Your task to perform on an android device: toggle pop-ups in chrome Image 0: 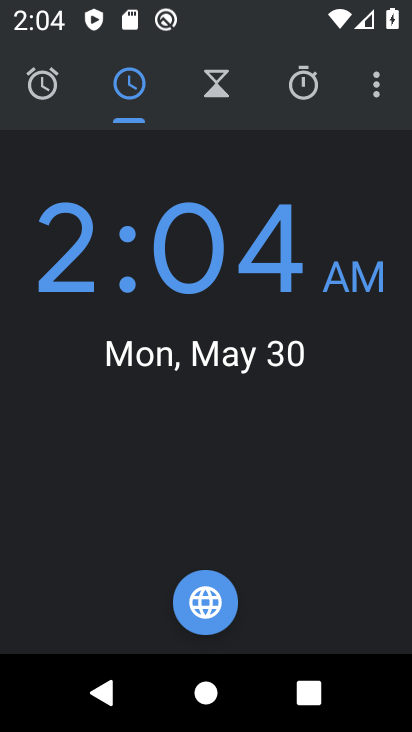
Step 0: press home button
Your task to perform on an android device: toggle pop-ups in chrome Image 1: 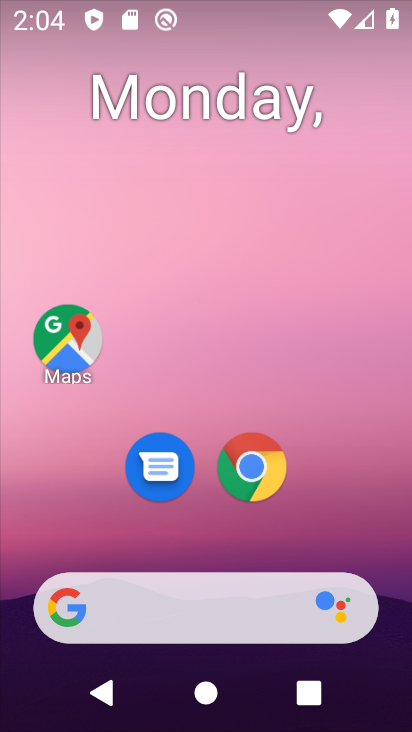
Step 1: drag from (373, 518) to (325, 153)
Your task to perform on an android device: toggle pop-ups in chrome Image 2: 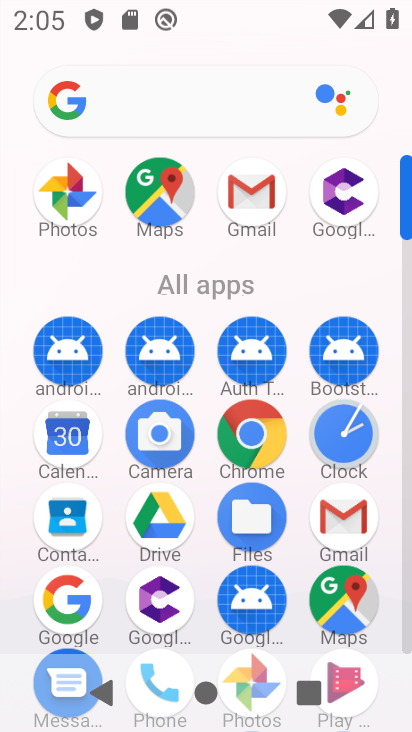
Step 2: click (401, 642)
Your task to perform on an android device: toggle pop-ups in chrome Image 3: 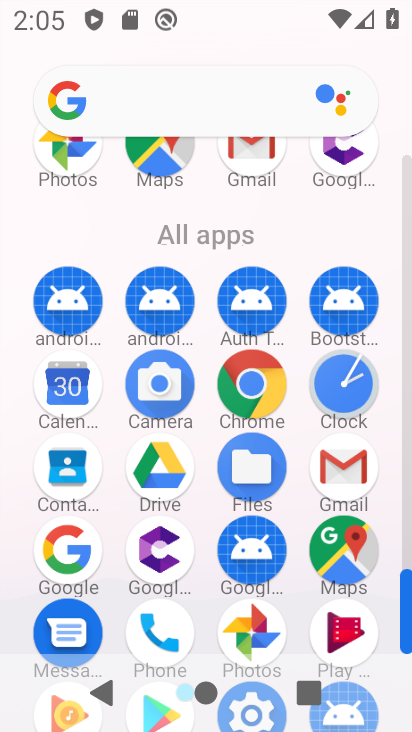
Step 3: click (262, 387)
Your task to perform on an android device: toggle pop-ups in chrome Image 4: 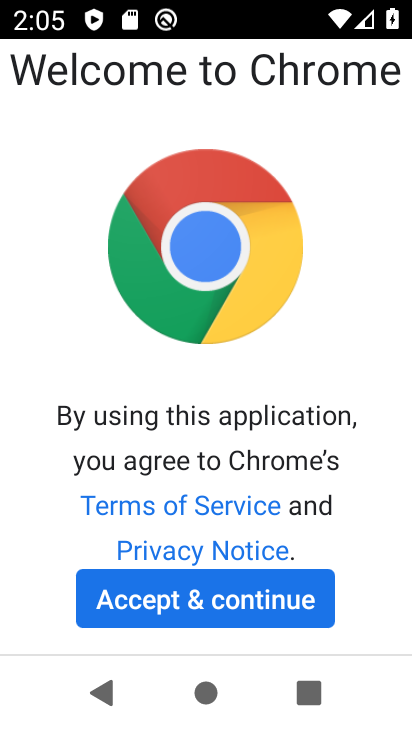
Step 4: click (289, 583)
Your task to perform on an android device: toggle pop-ups in chrome Image 5: 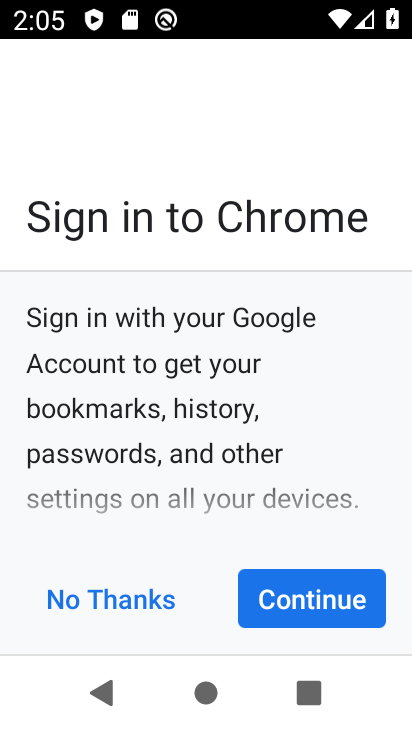
Step 5: click (289, 583)
Your task to perform on an android device: toggle pop-ups in chrome Image 6: 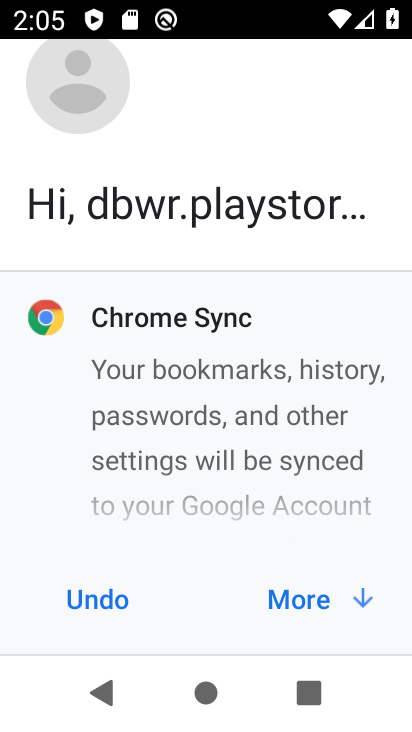
Step 6: click (289, 583)
Your task to perform on an android device: toggle pop-ups in chrome Image 7: 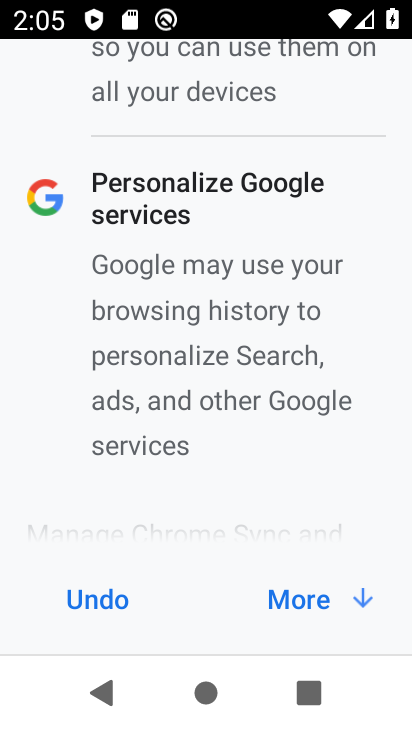
Step 7: click (289, 583)
Your task to perform on an android device: toggle pop-ups in chrome Image 8: 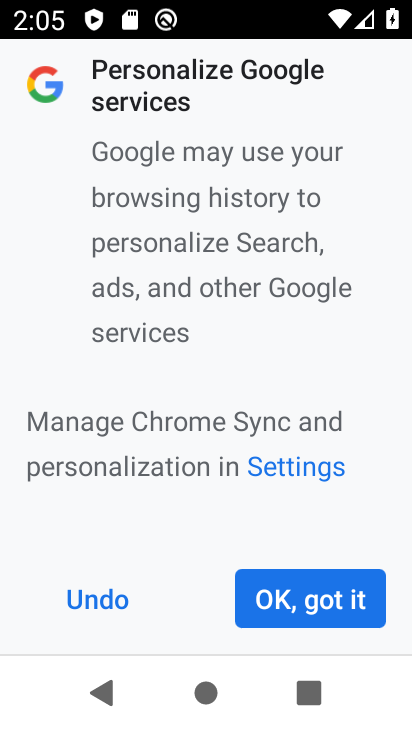
Step 8: click (289, 583)
Your task to perform on an android device: toggle pop-ups in chrome Image 9: 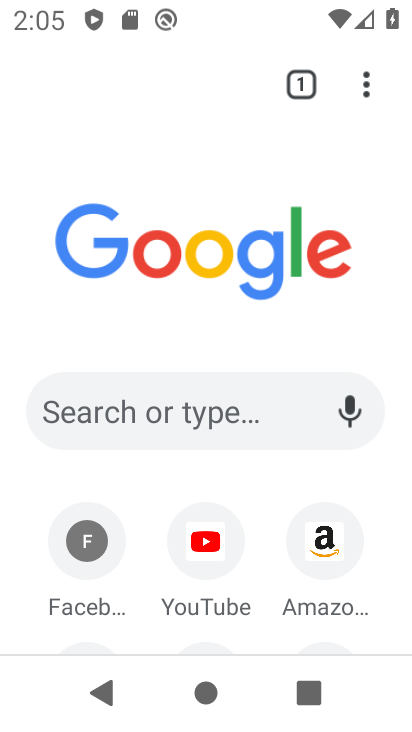
Step 9: click (382, 81)
Your task to perform on an android device: toggle pop-ups in chrome Image 10: 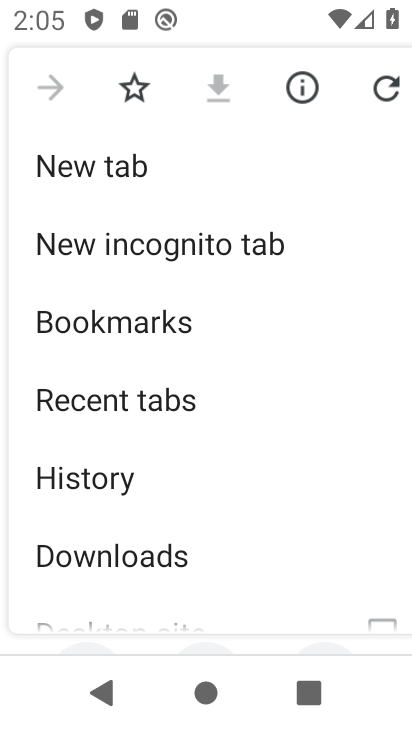
Step 10: drag from (186, 593) to (210, 196)
Your task to perform on an android device: toggle pop-ups in chrome Image 11: 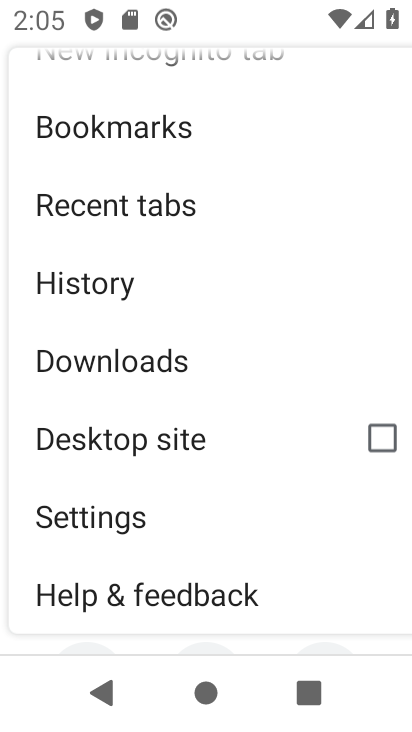
Step 11: click (156, 526)
Your task to perform on an android device: toggle pop-ups in chrome Image 12: 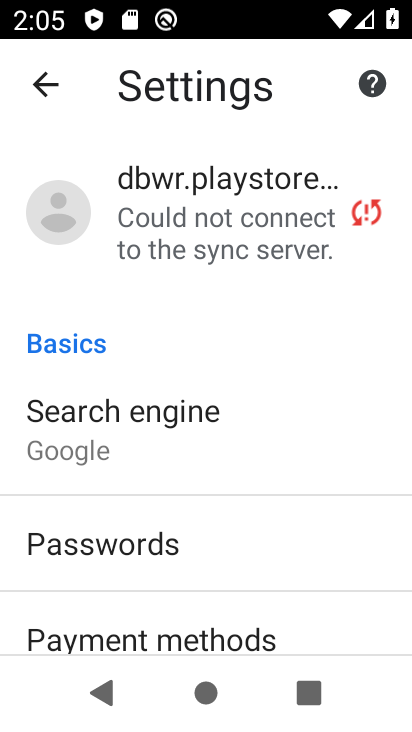
Step 12: drag from (175, 585) to (213, 94)
Your task to perform on an android device: toggle pop-ups in chrome Image 13: 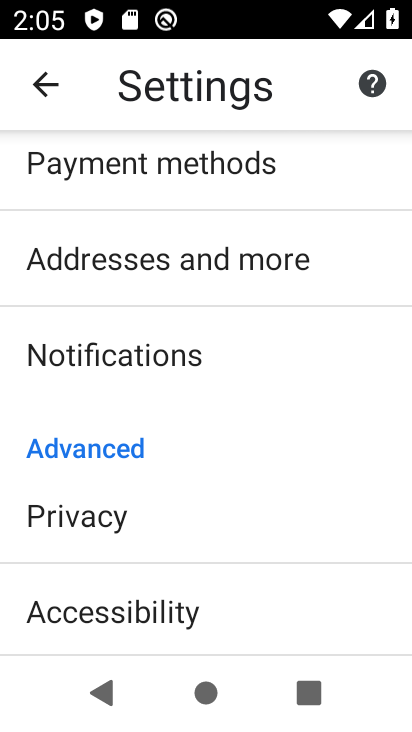
Step 13: drag from (229, 548) to (224, 135)
Your task to perform on an android device: toggle pop-ups in chrome Image 14: 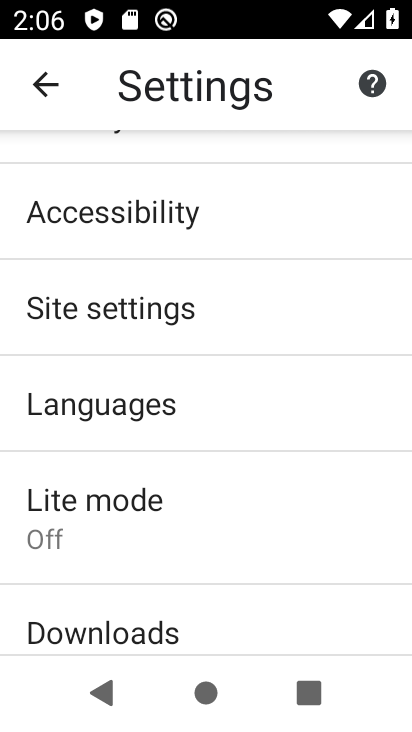
Step 14: click (210, 297)
Your task to perform on an android device: toggle pop-ups in chrome Image 15: 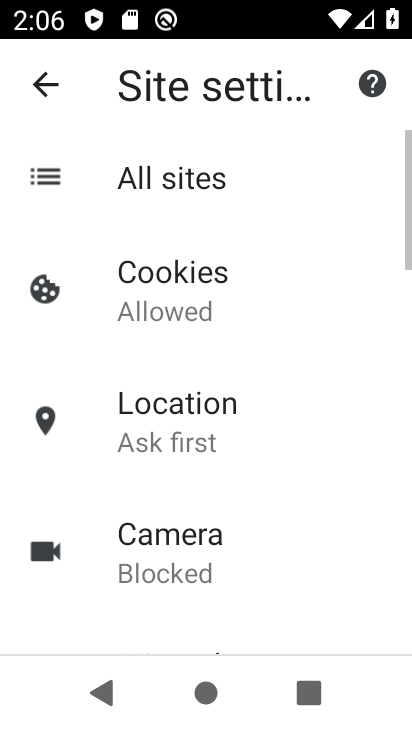
Step 15: drag from (232, 300) to (235, 187)
Your task to perform on an android device: toggle pop-ups in chrome Image 16: 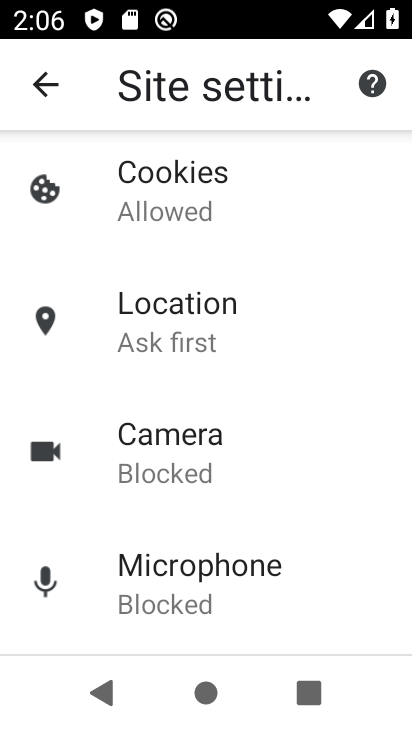
Step 16: drag from (241, 453) to (229, 217)
Your task to perform on an android device: toggle pop-ups in chrome Image 17: 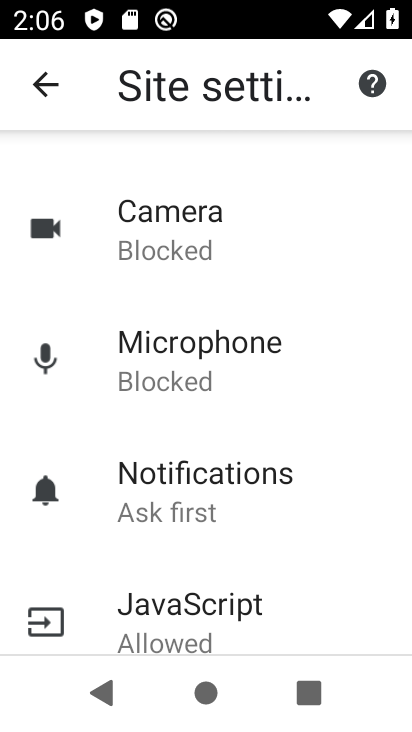
Step 17: drag from (251, 526) to (247, 227)
Your task to perform on an android device: toggle pop-ups in chrome Image 18: 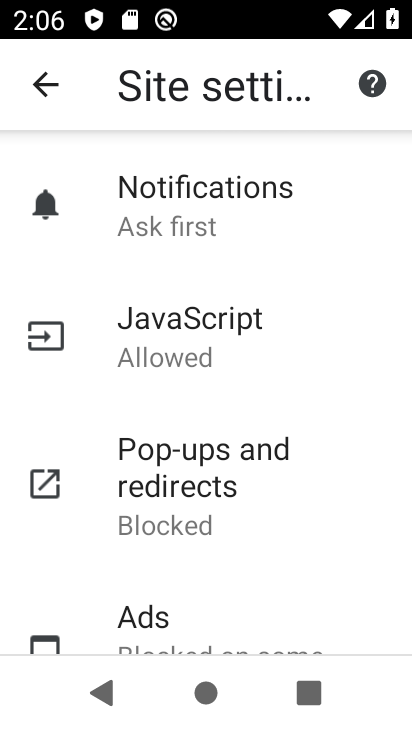
Step 18: click (253, 486)
Your task to perform on an android device: toggle pop-ups in chrome Image 19: 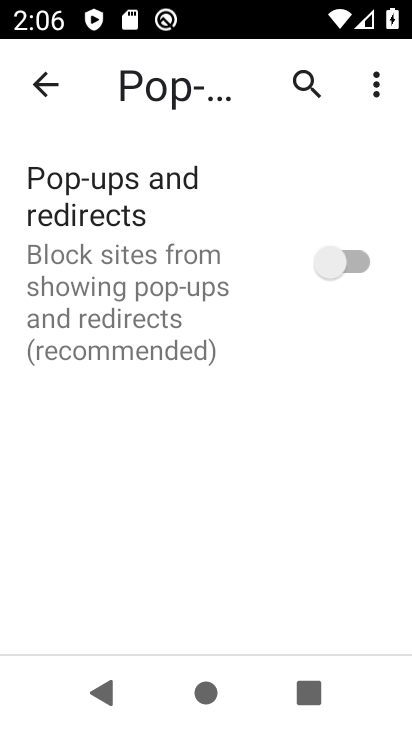
Step 19: click (366, 248)
Your task to perform on an android device: toggle pop-ups in chrome Image 20: 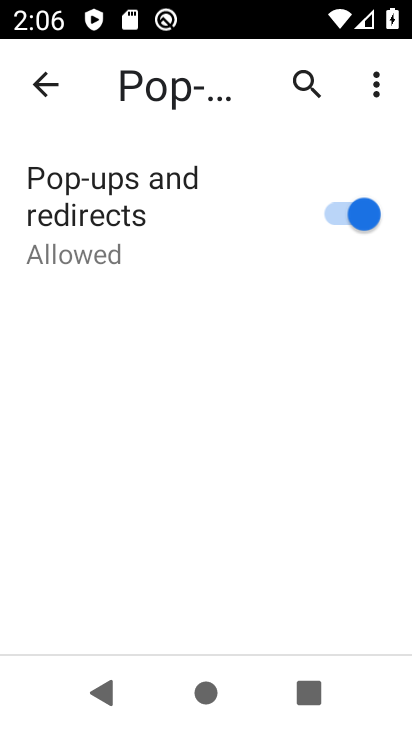
Step 20: task complete